Your task to perform on an android device: Open the phone app and click the voicemail tab. Image 0: 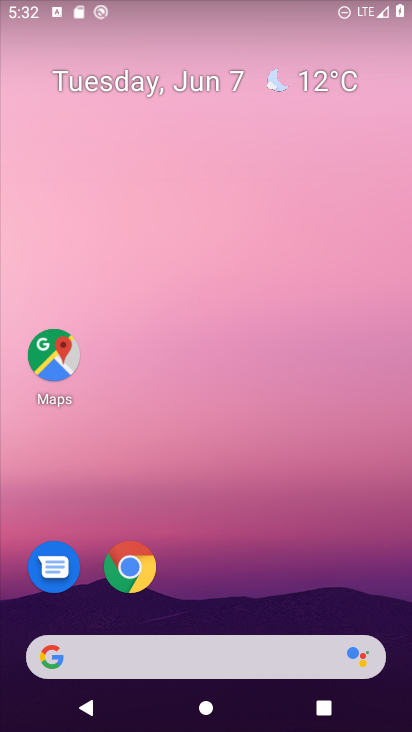
Step 0: drag from (130, 642) to (140, 47)
Your task to perform on an android device: Open the phone app and click the voicemail tab. Image 1: 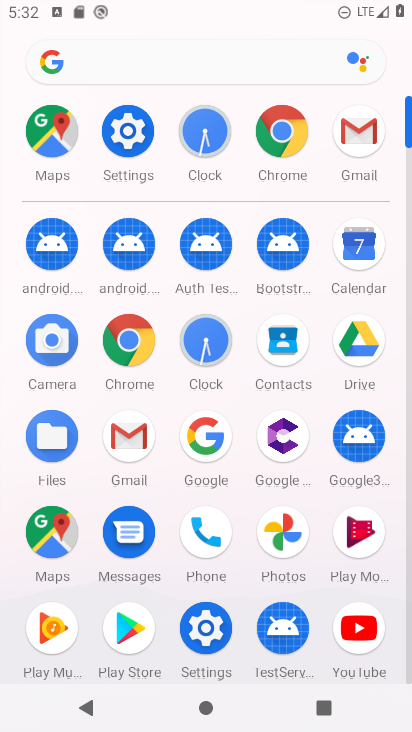
Step 1: click (225, 530)
Your task to perform on an android device: Open the phone app and click the voicemail tab. Image 2: 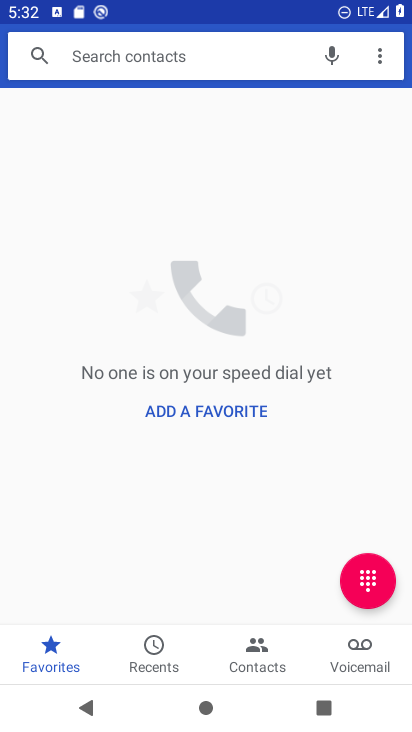
Step 2: click (351, 654)
Your task to perform on an android device: Open the phone app and click the voicemail tab. Image 3: 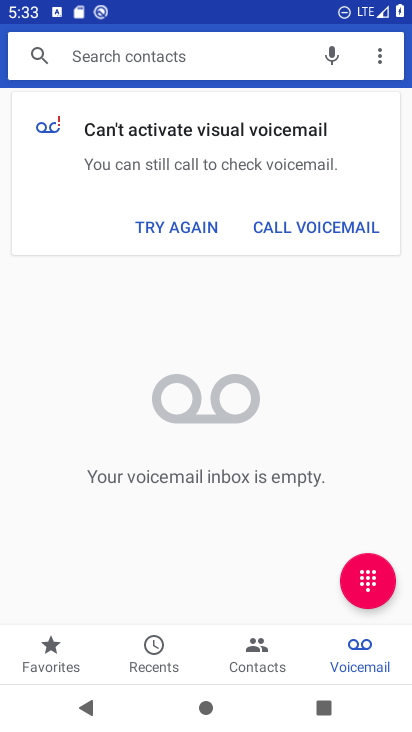
Step 3: task complete